Your task to perform on an android device: set the stopwatch Image 0: 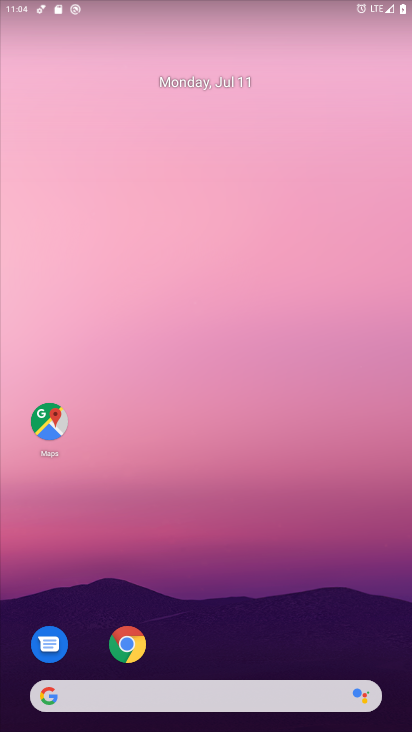
Step 0: drag from (249, 652) to (192, 44)
Your task to perform on an android device: set the stopwatch Image 1: 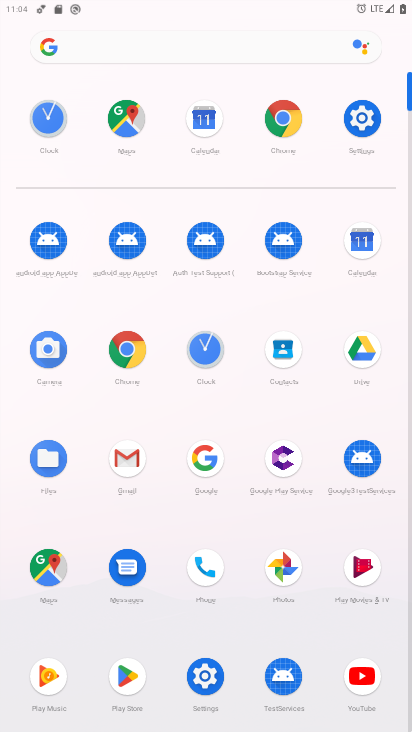
Step 1: click (191, 342)
Your task to perform on an android device: set the stopwatch Image 2: 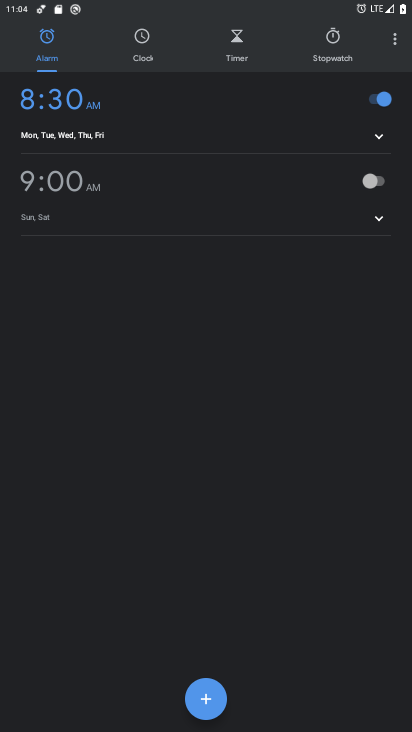
Step 2: click (336, 64)
Your task to perform on an android device: set the stopwatch Image 3: 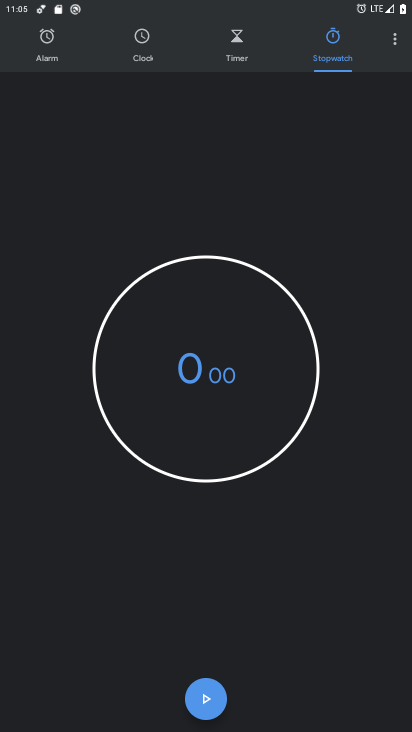
Step 3: task complete